Your task to perform on an android device: Search for Italian restaurants on Maps Image 0: 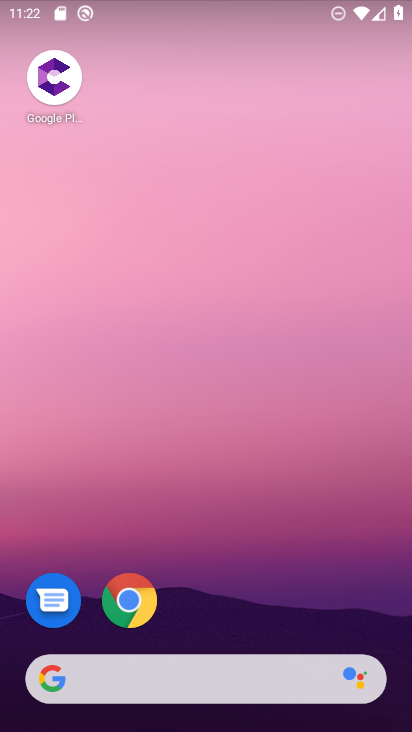
Step 0: drag from (332, 574) to (168, 181)
Your task to perform on an android device: Search for Italian restaurants on Maps Image 1: 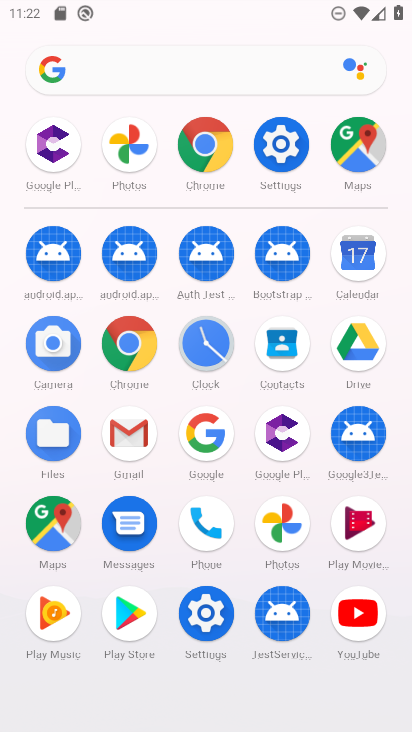
Step 1: click (342, 152)
Your task to perform on an android device: Search for Italian restaurants on Maps Image 2: 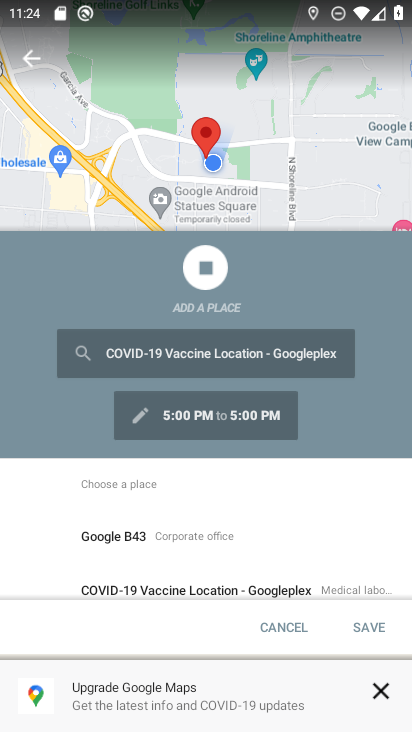
Step 2: press back button
Your task to perform on an android device: Search for Italian restaurants on Maps Image 3: 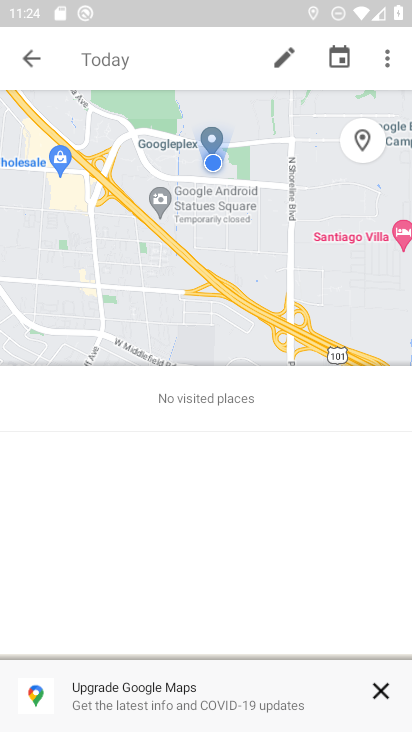
Step 3: click (34, 69)
Your task to perform on an android device: Search for Italian restaurants on Maps Image 4: 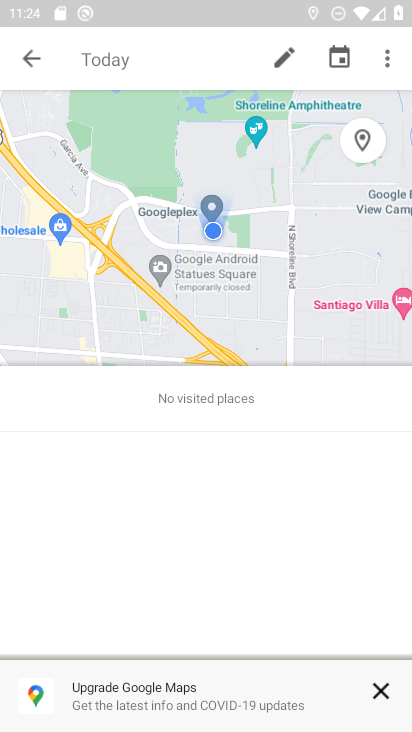
Step 4: click (33, 68)
Your task to perform on an android device: Search for Italian restaurants on Maps Image 5: 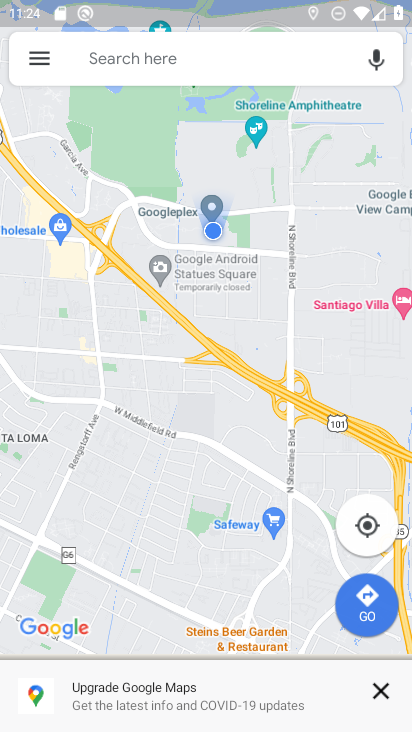
Step 5: click (97, 64)
Your task to perform on an android device: Search for Italian restaurants on Maps Image 6: 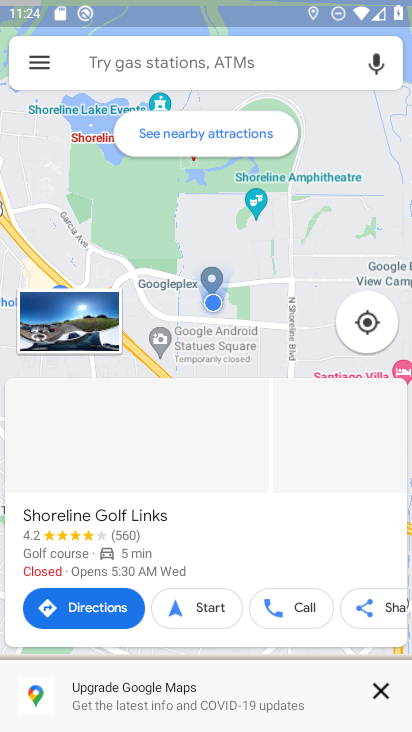
Step 6: click (93, 63)
Your task to perform on an android device: Search for Italian restaurants on Maps Image 7: 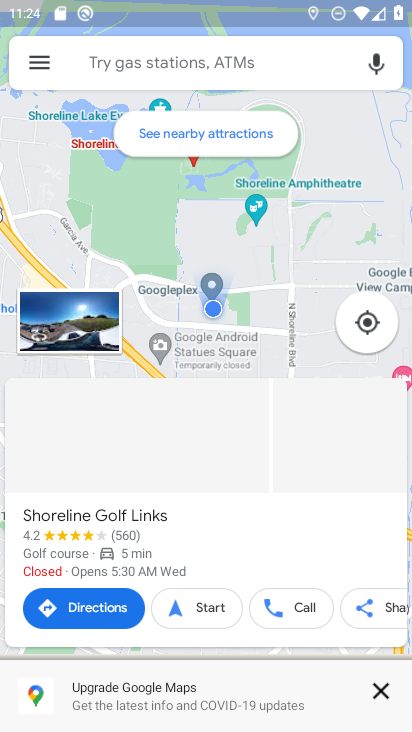
Step 7: click (96, 63)
Your task to perform on an android device: Search for Italian restaurants on Maps Image 8: 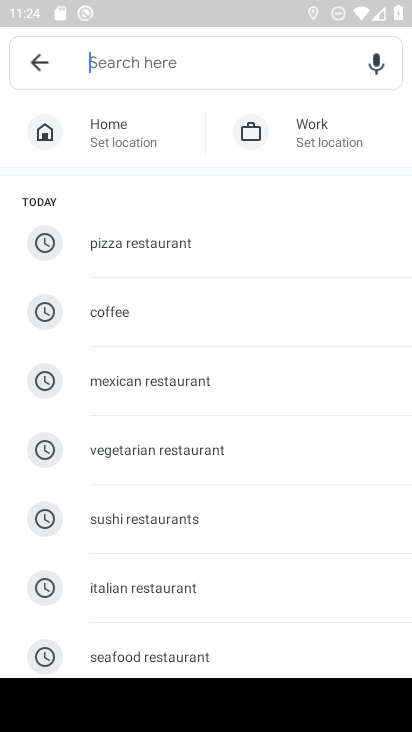
Step 8: click (113, 574)
Your task to perform on an android device: Search for Italian restaurants on Maps Image 9: 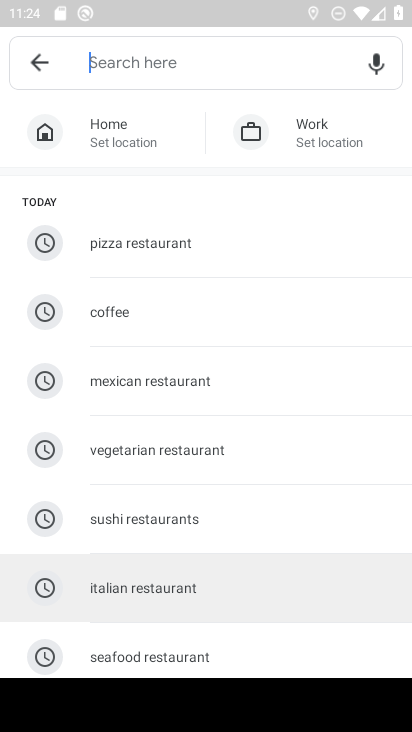
Step 9: click (113, 574)
Your task to perform on an android device: Search for Italian restaurants on Maps Image 10: 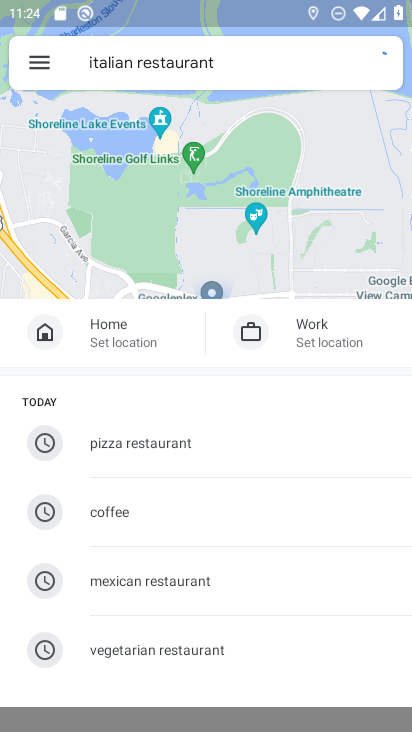
Step 10: click (113, 574)
Your task to perform on an android device: Search for Italian restaurants on Maps Image 11: 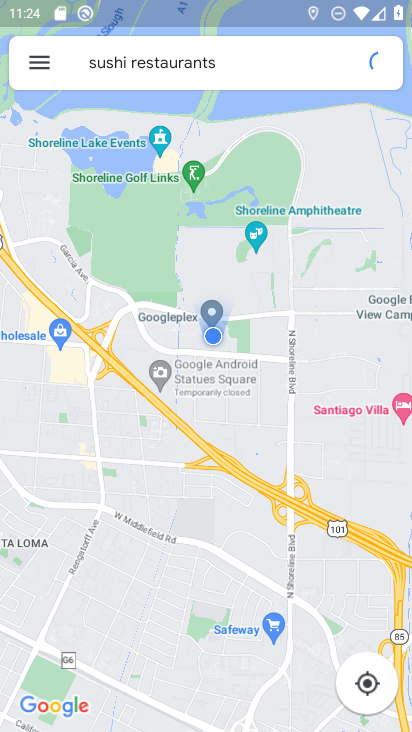
Step 11: task complete